Your task to perform on an android device: create a new album in the google photos Image 0: 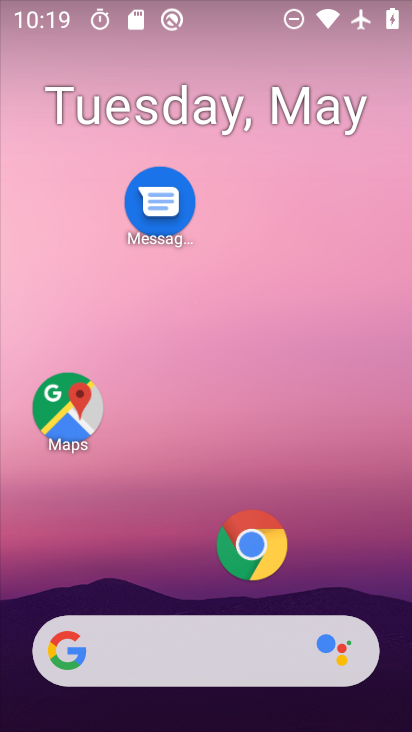
Step 0: drag from (190, 583) to (248, 219)
Your task to perform on an android device: create a new album in the google photos Image 1: 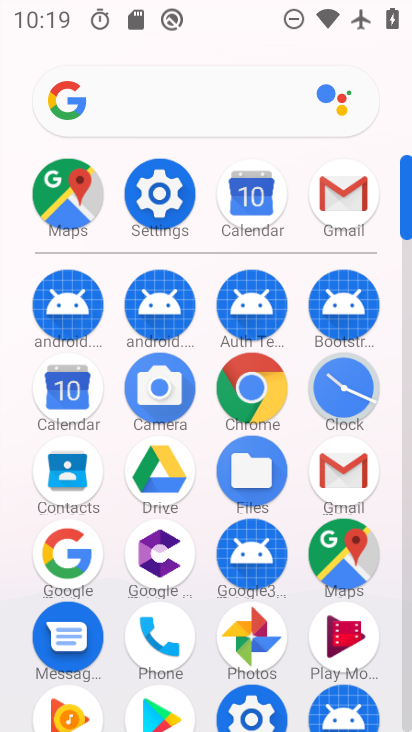
Step 1: drag from (193, 574) to (208, 389)
Your task to perform on an android device: create a new album in the google photos Image 2: 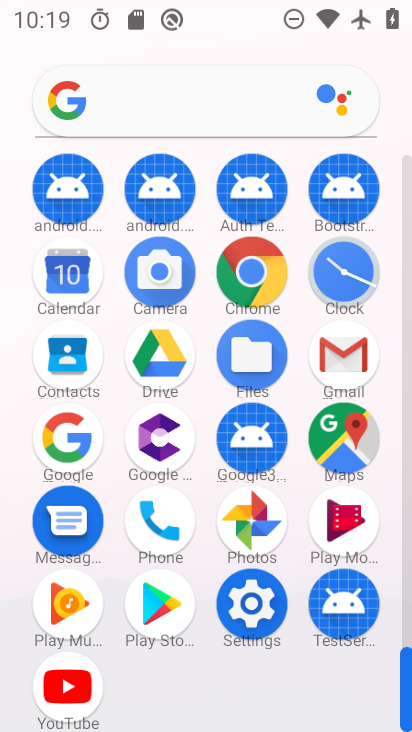
Step 2: click (247, 503)
Your task to perform on an android device: create a new album in the google photos Image 3: 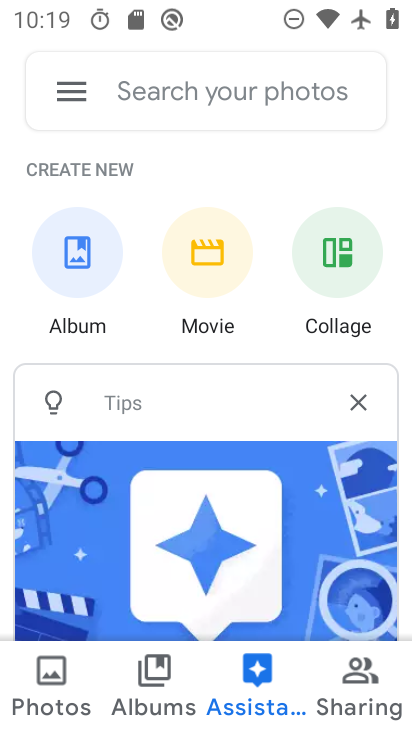
Step 3: click (63, 676)
Your task to perform on an android device: create a new album in the google photos Image 4: 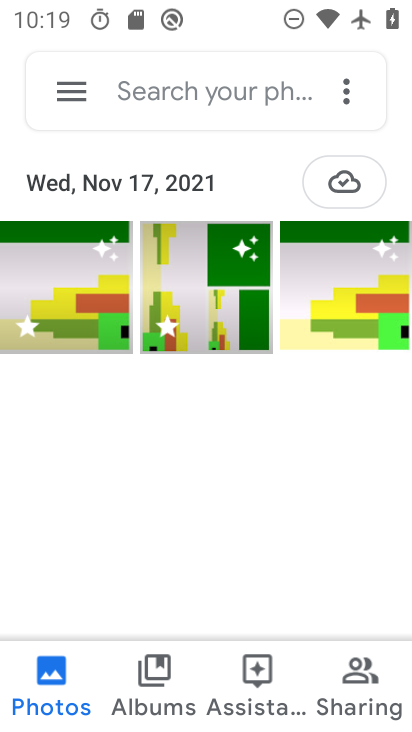
Step 4: click (347, 87)
Your task to perform on an android device: create a new album in the google photos Image 5: 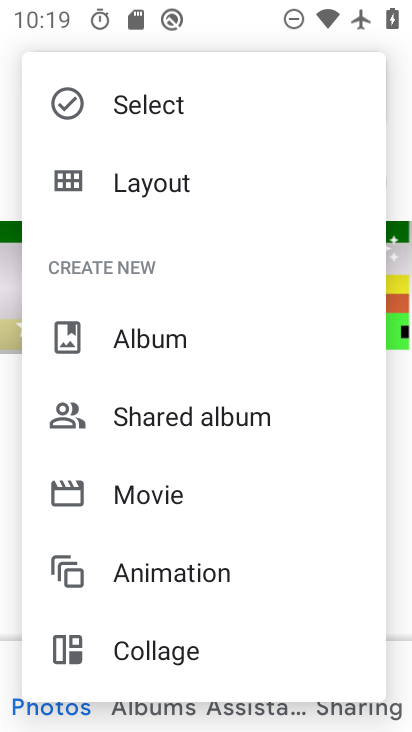
Step 5: click (158, 345)
Your task to perform on an android device: create a new album in the google photos Image 6: 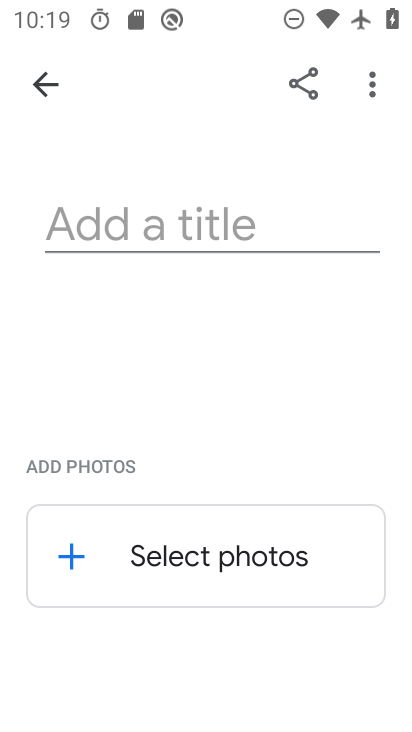
Step 6: click (244, 219)
Your task to perform on an android device: create a new album in the google photos Image 7: 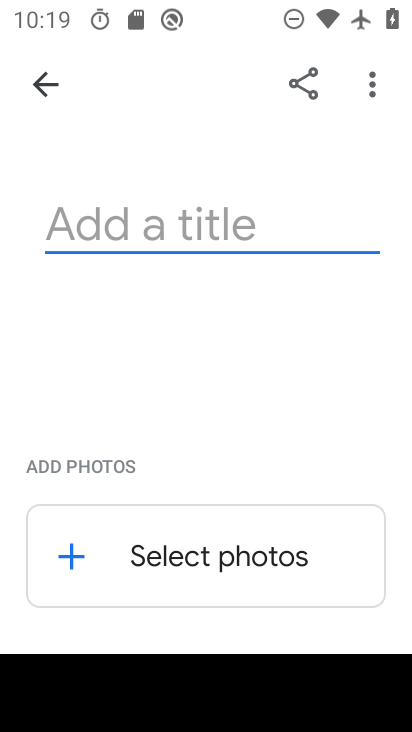
Step 7: type "hjfluj"
Your task to perform on an android device: create a new album in the google photos Image 8: 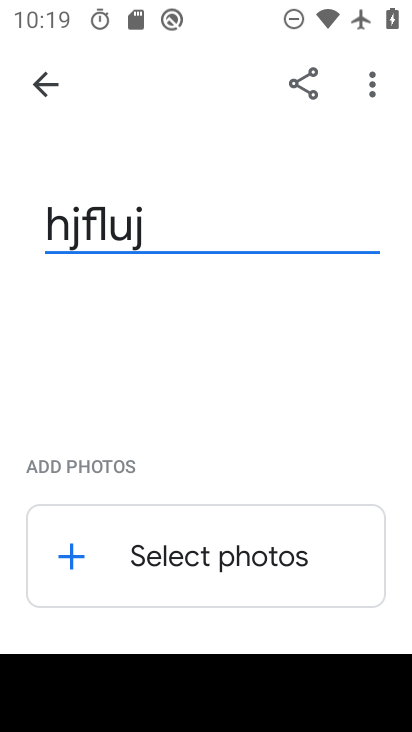
Step 8: click (78, 558)
Your task to perform on an android device: create a new album in the google photos Image 9: 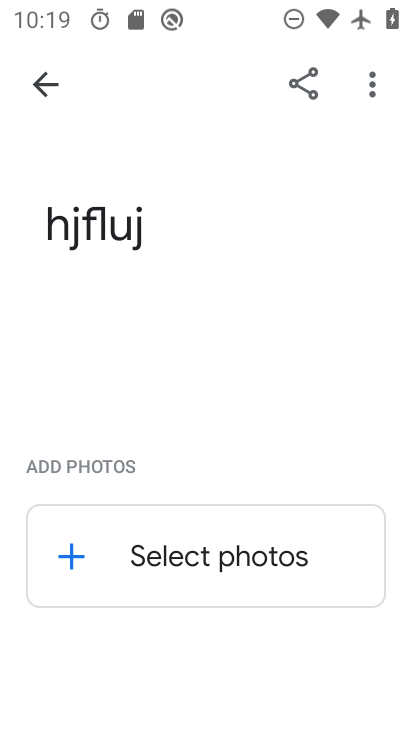
Step 9: click (78, 558)
Your task to perform on an android device: create a new album in the google photos Image 10: 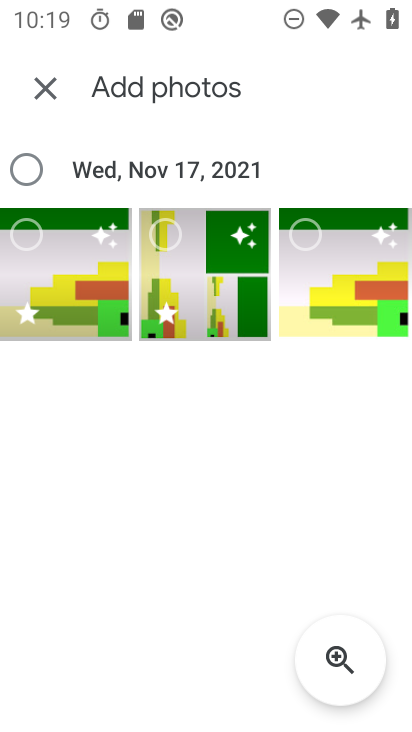
Step 10: click (65, 240)
Your task to perform on an android device: create a new album in the google photos Image 11: 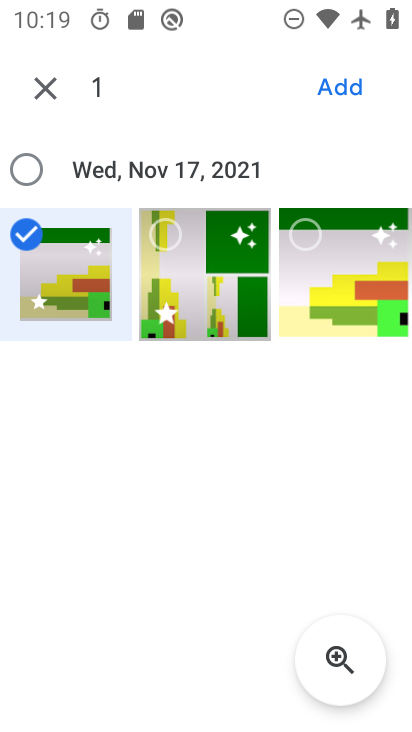
Step 11: click (327, 81)
Your task to perform on an android device: create a new album in the google photos Image 12: 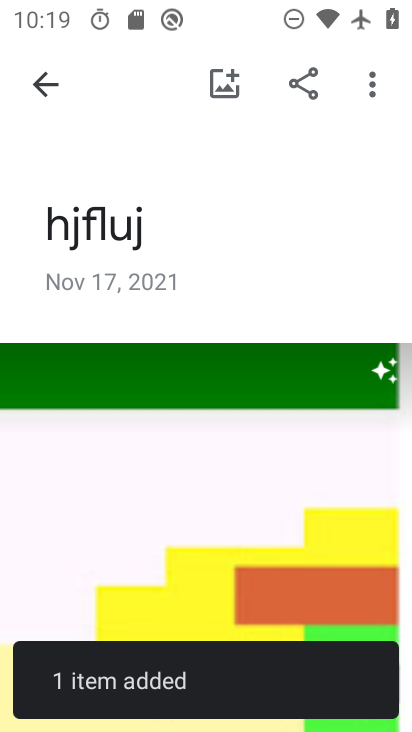
Step 12: task complete